Your task to perform on an android device: Show me productivity apps on the Play Store Image 0: 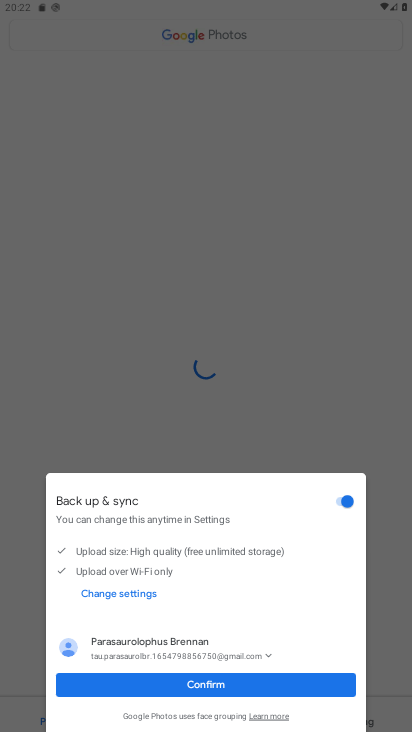
Step 0: press home button
Your task to perform on an android device: Show me productivity apps on the Play Store Image 1: 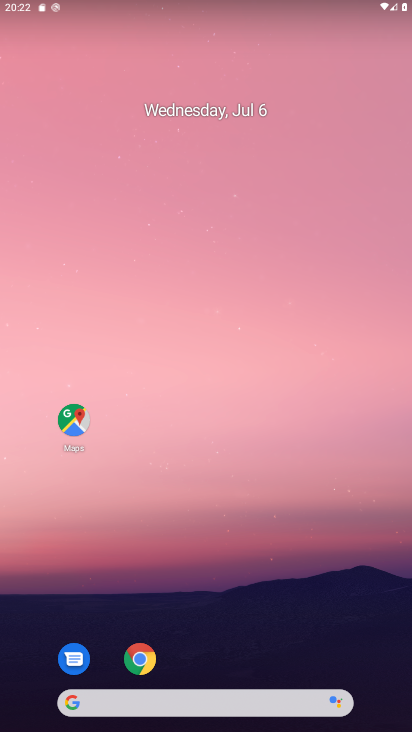
Step 1: drag from (222, 658) to (292, 135)
Your task to perform on an android device: Show me productivity apps on the Play Store Image 2: 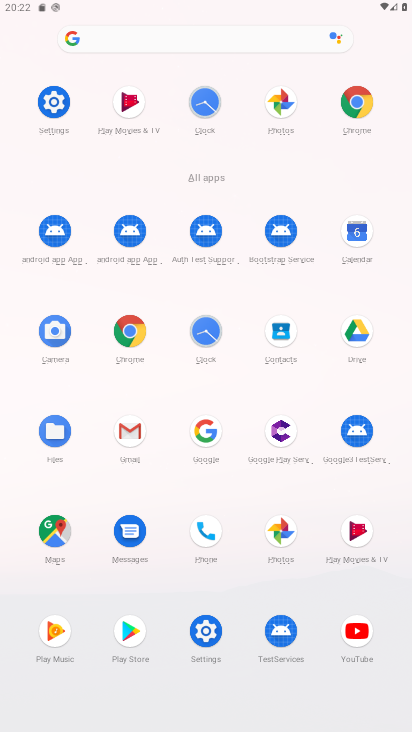
Step 2: click (125, 629)
Your task to perform on an android device: Show me productivity apps on the Play Store Image 3: 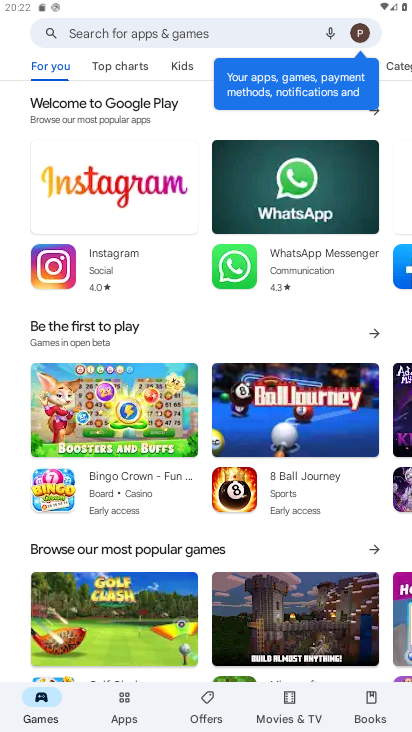
Step 3: click (121, 711)
Your task to perform on an android device: Show me productivity apps on the Play Store Image 4: 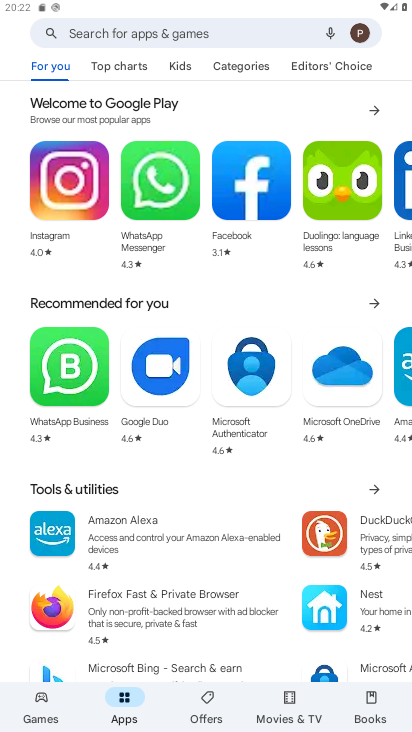
Step 4: click (232, 62)
Your task to perform on an android device: Show me productivity apps on the Play Store Image 5: 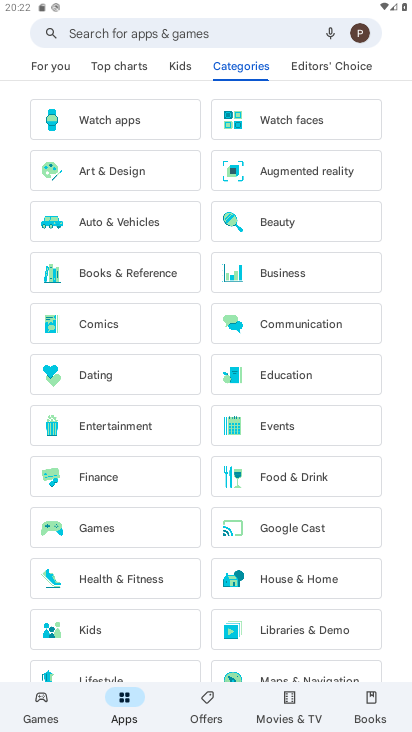
Step 5: drag from (197, 657) to (218, 340)
Your task to perform on an android device: Show me productivity apps on the Play Store Image 6: 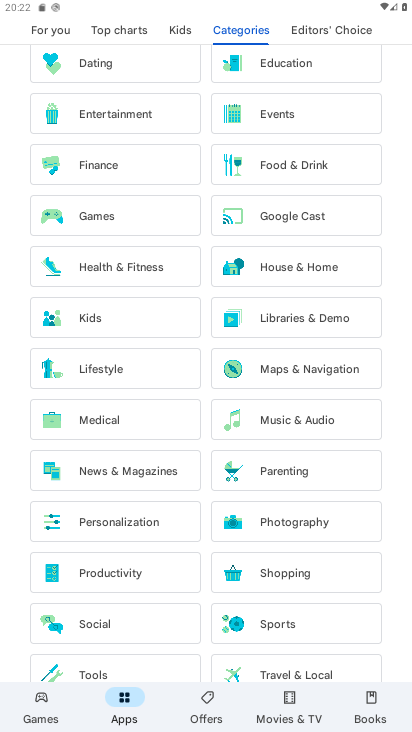
Step 6: drag from (184, 634) to (206, 345)
Your task to perform on an android device: Show me productivity apps on the Play Store Image 7: 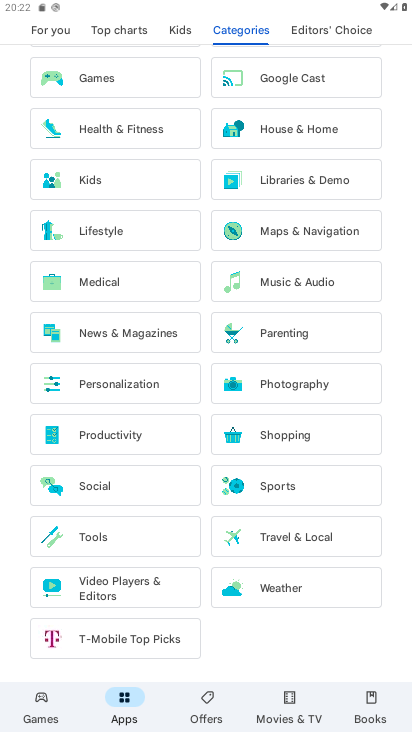
Step 7: click (114, 424)
Your task to perform on an android device: Show me productivity apps on the Play Store Image 8: 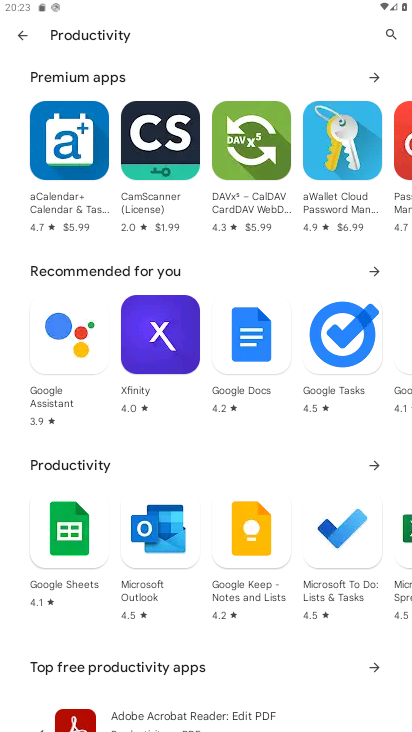
Step 8: task complete